Your task to perform on an android device: Show me the alarms in the clock app Image 0: 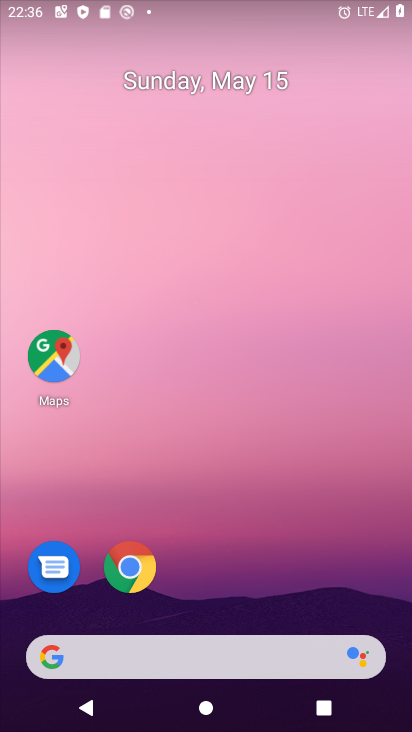
Step 0: drag from (258, 692) to (268, 40)
Your task to perform on an android device: Show me the alarms in the clock app Image 1: 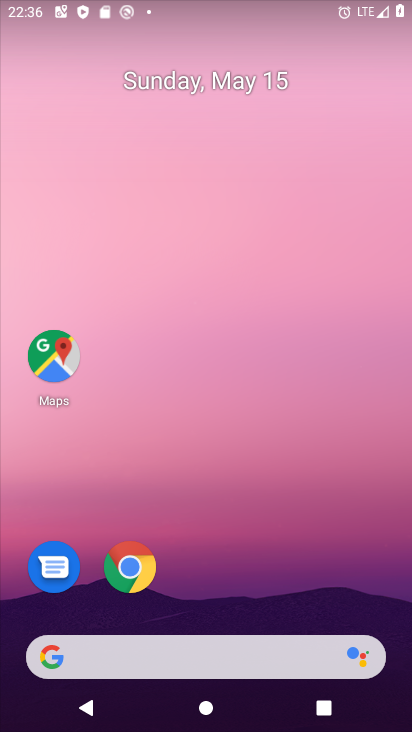
Step 1: drag from (250, 716) to (287, 8)
Your task to perform on an android device: Show me the alarms in the clock app Image 2: 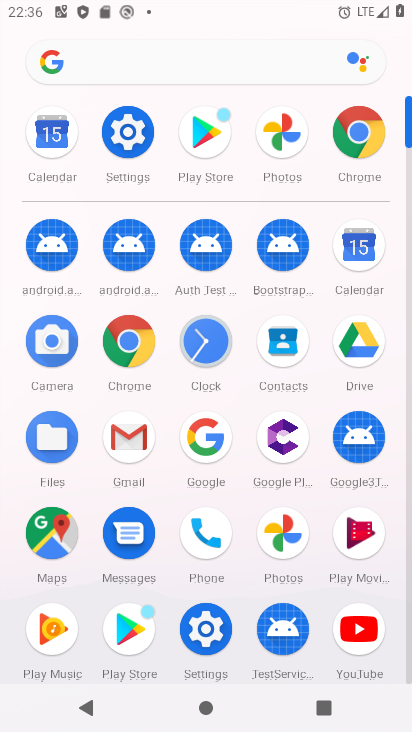
Step 2: click (195, 348)
Your task to perform on an android device: Show me the alarms in the clock app Image 3: 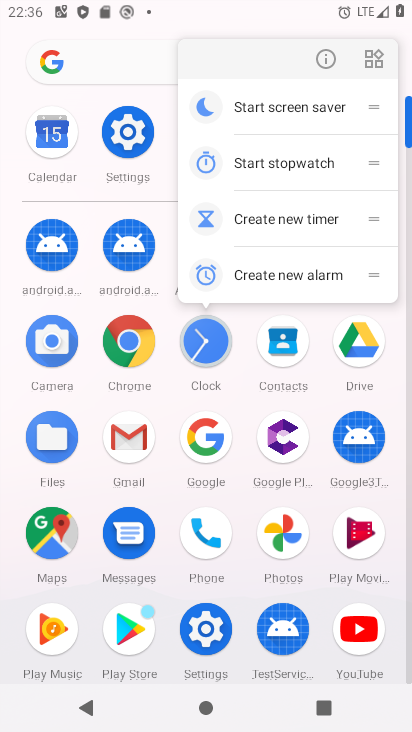
Step 3: click (195, 348)
Your task to perform on an android device: Show me the alarms in the clock app Image 4: 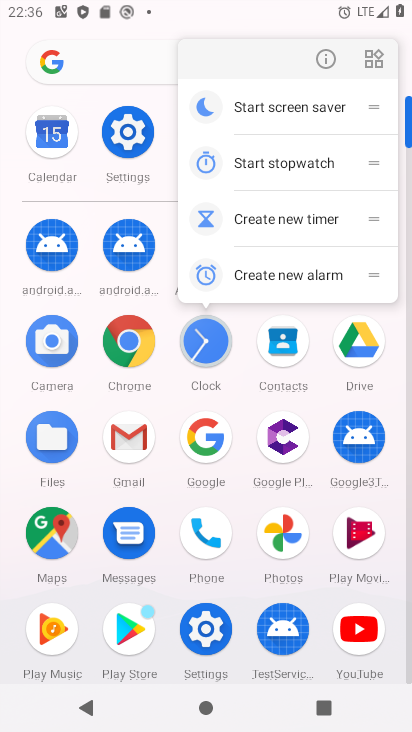
Step 4: click (195, 348)
Your task to perform on an android device: Show me the alarms in the clock app Image 5: 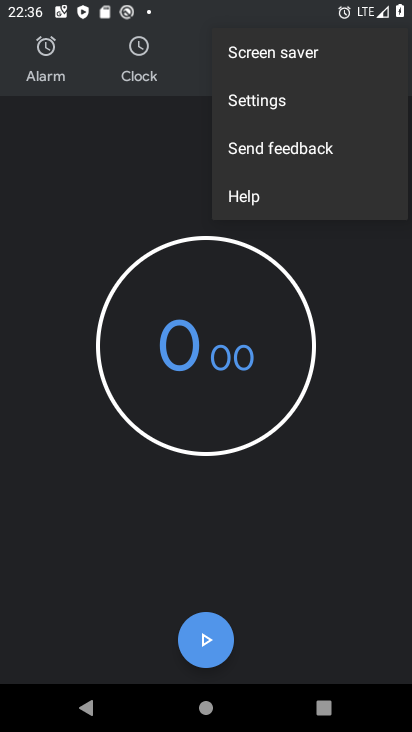
Step 5: click (51, 60)
Your task to perform on an android device: Show me the alarms in the clock app Image 6: 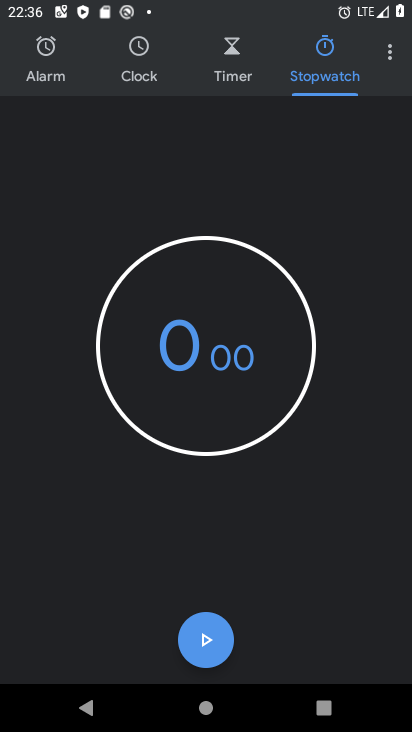
Step 6: click (40, 60)
Your task to perform on an android device: Show me the alarms in the clock app Image 7: 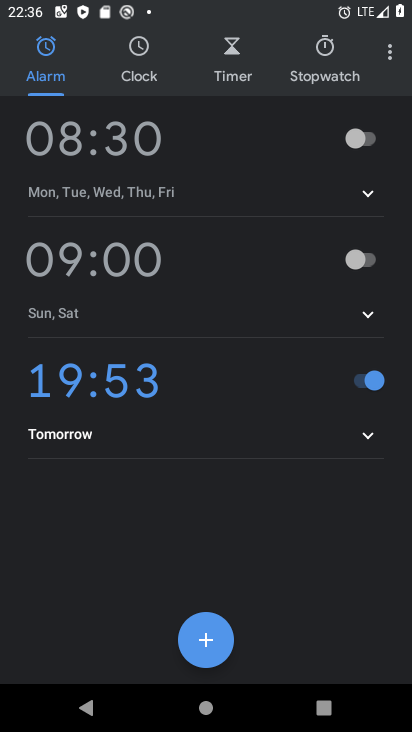
Step 7: task complete